Your task to perform on an android device: Open battery settings Image 0: 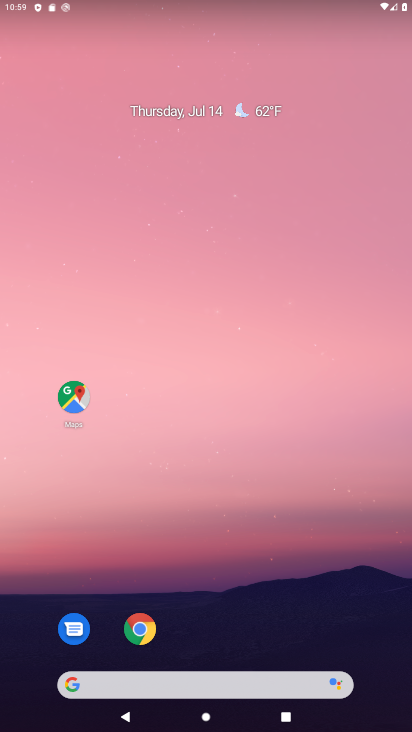
Step 0: drag from (275, 641) to (201, 143)
Your task to perform on an android device: Open battery settings Image 1: 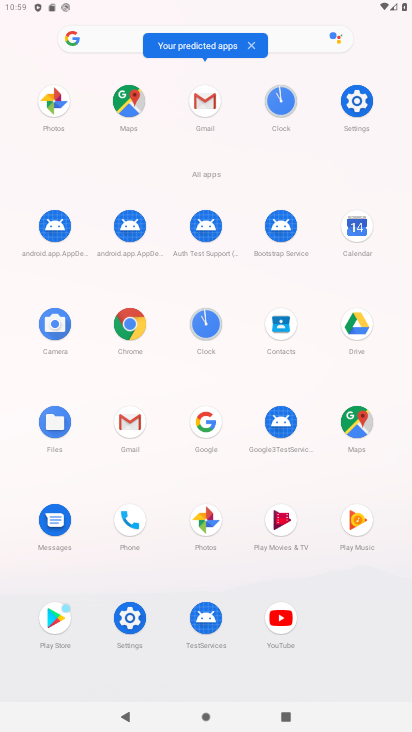
Step 1: click (351, 106)
Your task to perform on an android device: Open battery settings Image 2: 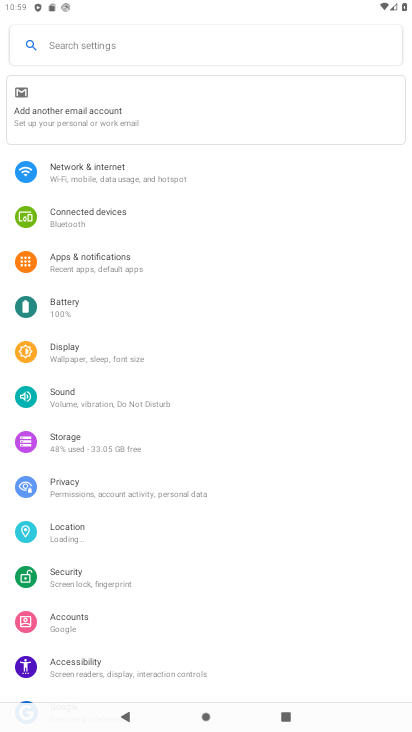
Step 2: click (174, 313)
Your task to perform on an android device: Open battery settings Image 3: 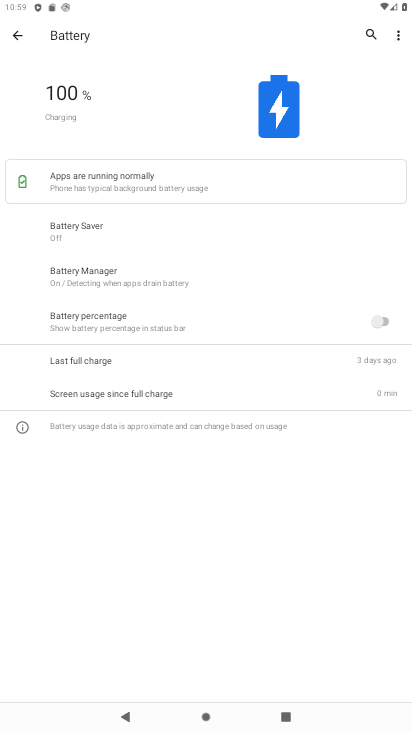
Step 3: task complete